Your task to perform on an android device: allow notifications from all sites in the chrome app Image 0: 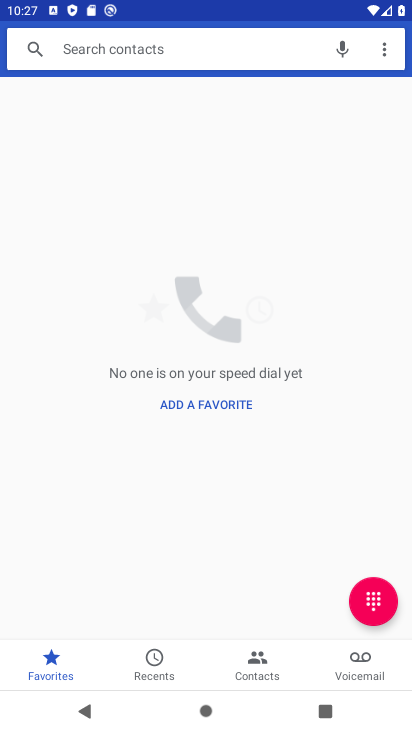
Step 0: press home button
Your task to perform on an android device: allow notifications from all sites in the chrome app Image 1: 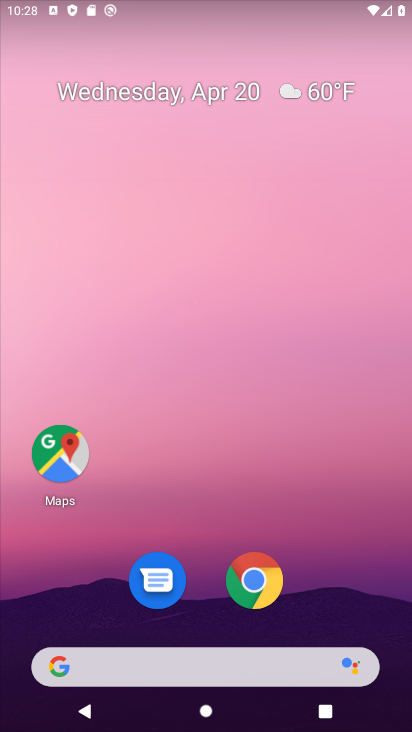
Step 1: click (262, 583)
Your task to perform on an android device: allow notifications from all sites in the chrome app Image 2: 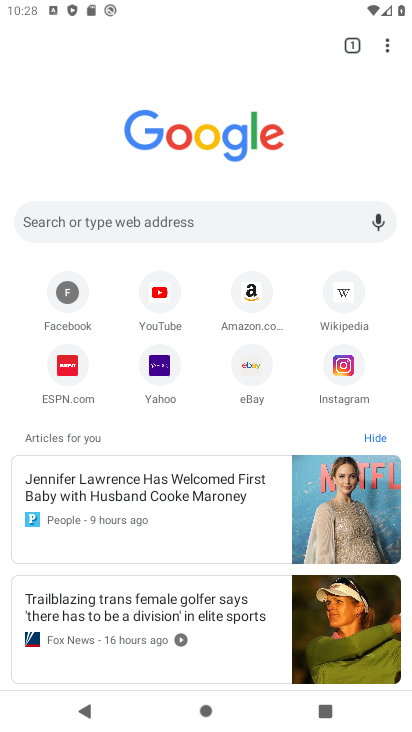
Step 2: drag from (388, 45) to (246, 430)
Your task to perform on an android device: allow notifications from all sites in the chrome app Image 3: 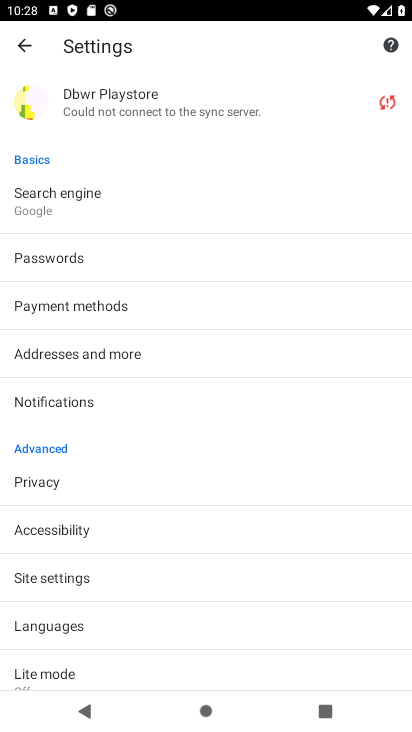
Step 3: click (55, 585)
Your task to perform on an android device: allow notifications from all sites in the chrome app Image 4: 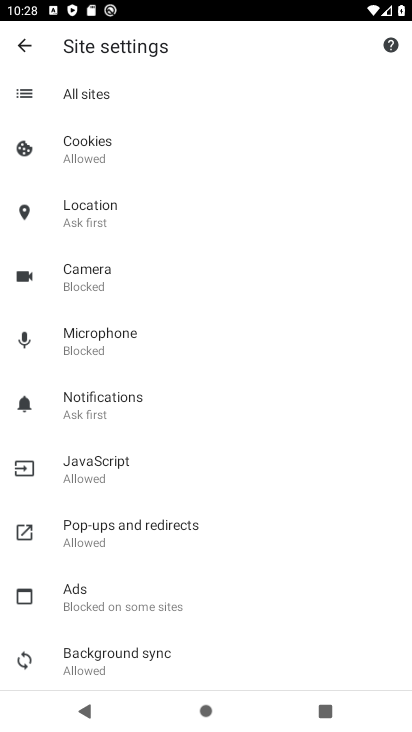
Step 4: click (110, 410)
Your task to perform on an android device: allow notifications from all sites in the chrome app Image 5: 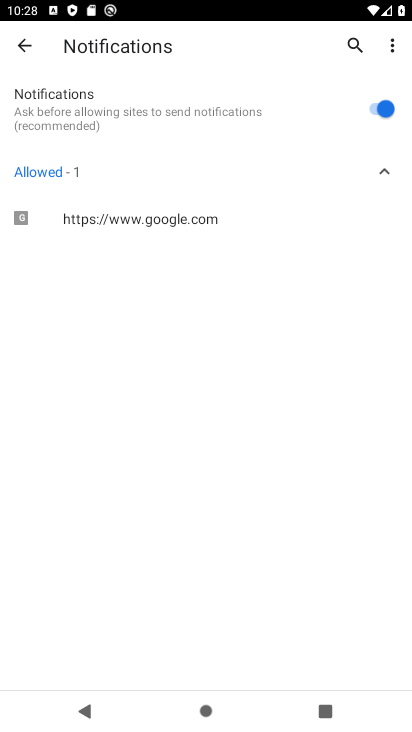
Step 5: task complete